Your task to perform on an android device: turn on notifications settings in the gmail app Image 0: 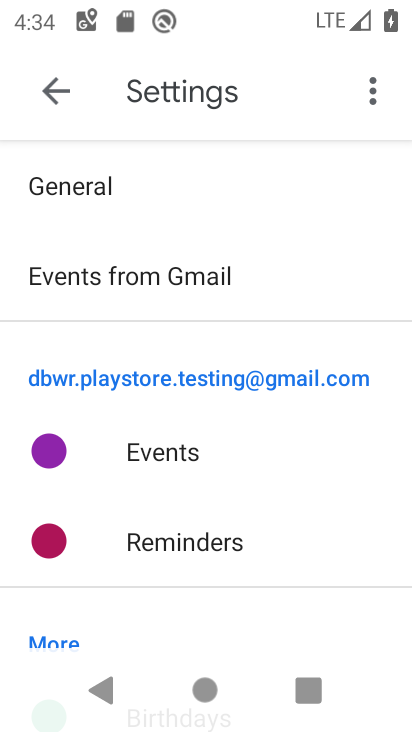
Step 0: press home button
Your task to perform on an android device: turn on notifications settings in the gmail app Image 1: 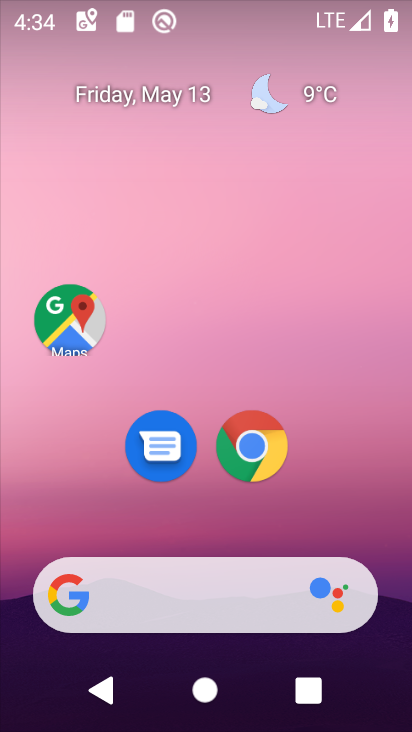
Step 1: drag from (96, 510) to (82, 132)
Your task to perform on an android device: turn on notifications settings in the gmail app Image 2: 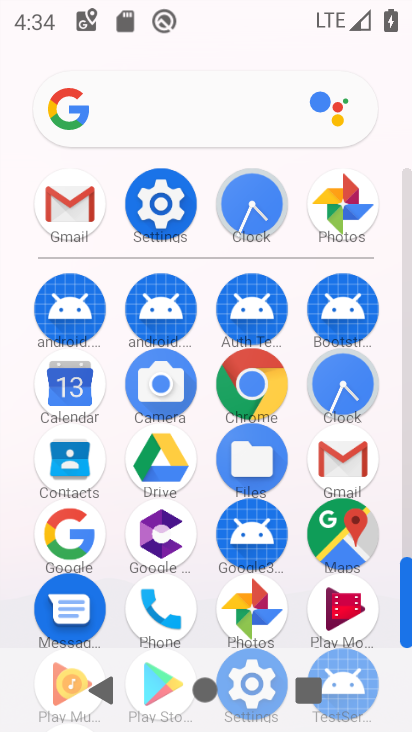
Step 2: click (340, 466)
Your task to perform on an android device: turn on notifications settings in the gmail app Image 3: 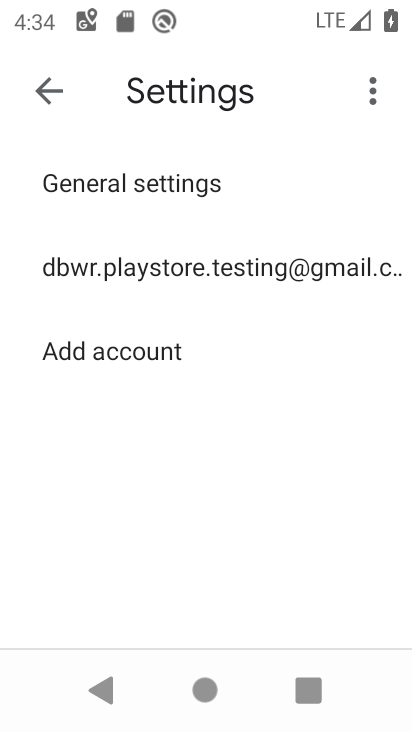
Step 3: click (155, 259)
Your task to perform on an android device: turn on notifications settings in the gmail app Image 4: 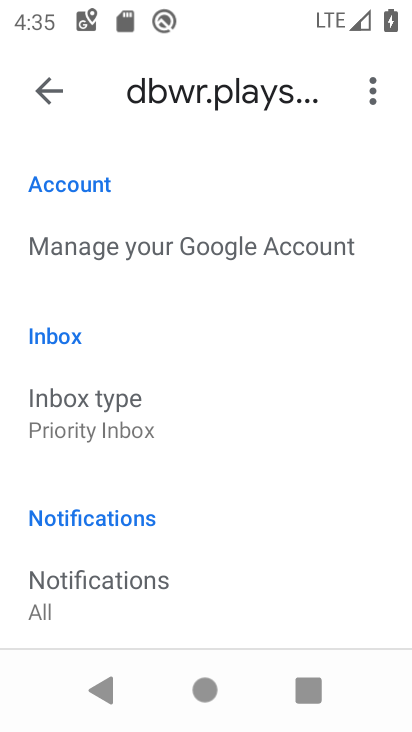
Step 4: drag from (263, 550) to (312, 192)
Your task to perform on an android device: turn on notifications settings in the gmail app Image 5: 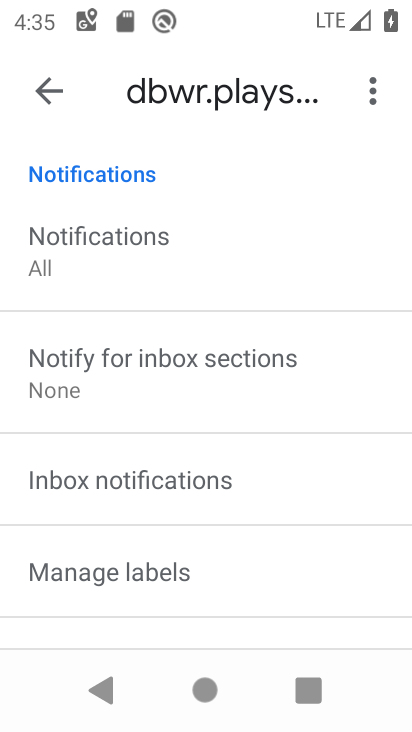
Step 5: drag from (185, 579) to (210, 288)
Your task to perform on an android device: turn on notifications settings in the gmail app Image 6: 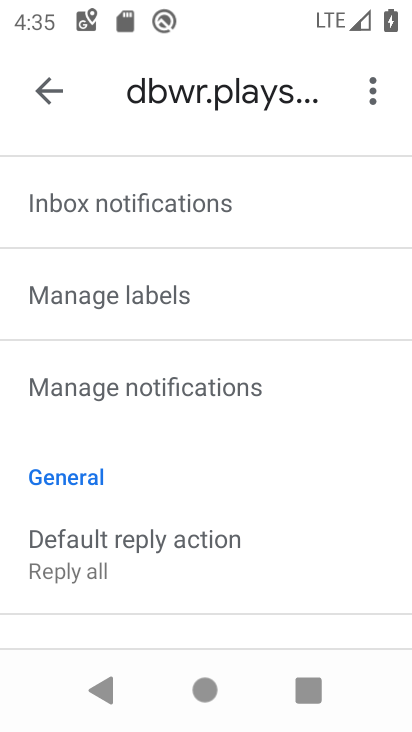
Step 6: click (217, 403)
Your task to perform on an android device: turn on notifications settings in the gmail app Image 7: 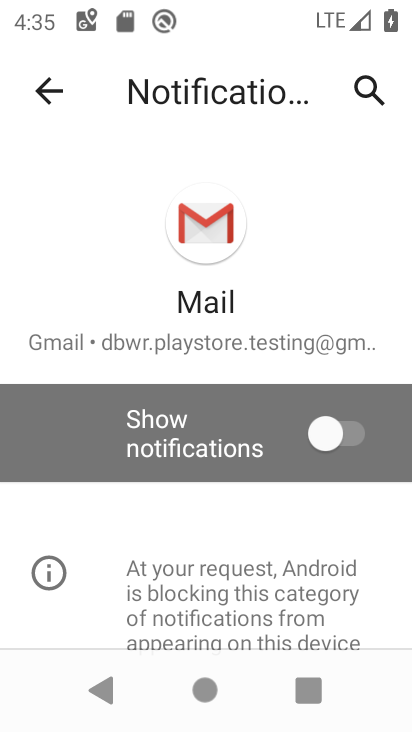
Step 7: click (331, 436)
Your task to perform on an android device: turn on notifications settings in the gmail app Image 8: 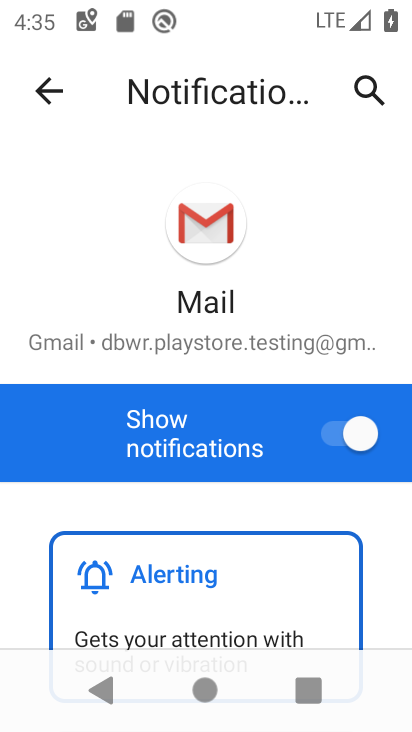
Step 8: task complete